Your task to perform on an android device: Open calendar and show me the third week of next month Image 0: 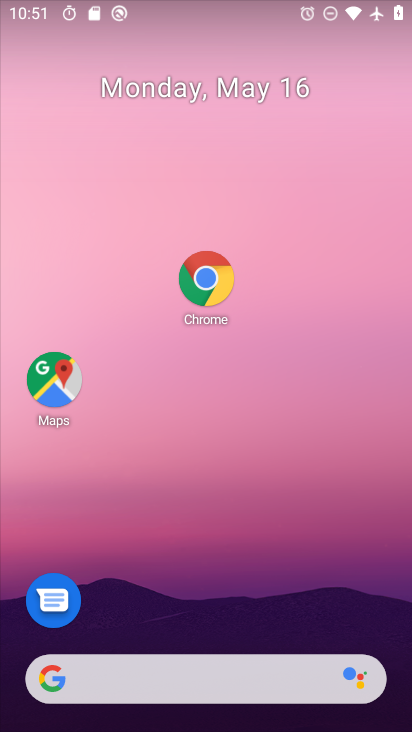
Step 0: drag from (239, 327) to (269, 267)
Your task to perform on an android device: Open calendar and show me the third week of next month Image 1: 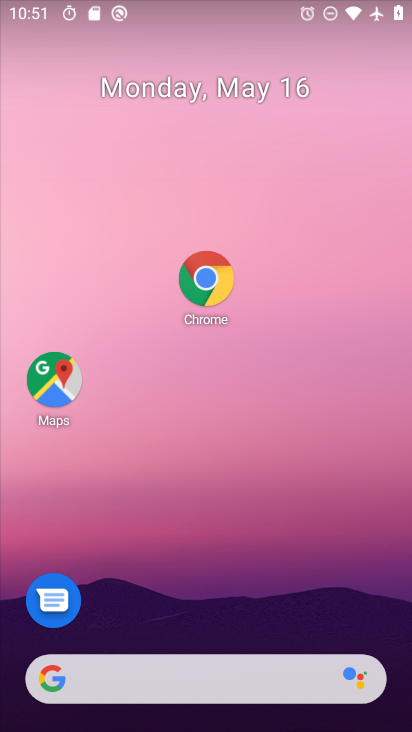
Step 1: drag from (168, 675) to (301, 30)
Your task to perform on an android device: Open calendar and show me the third week of next month Image 2: 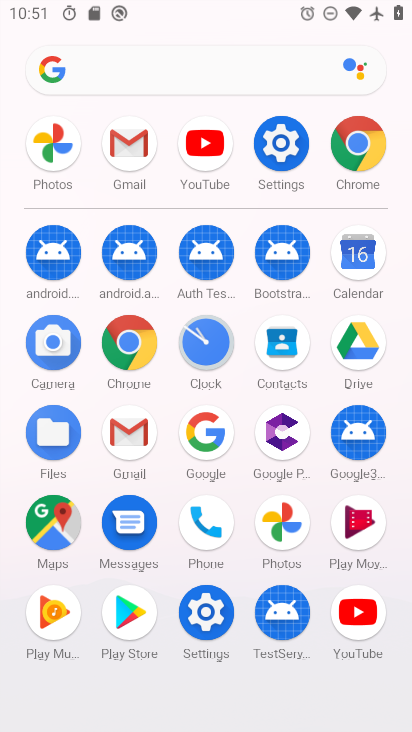
Step 2: click (362, 256)
Your task to perform on an android device: Open calendar and show me the third week of next month Image 3: 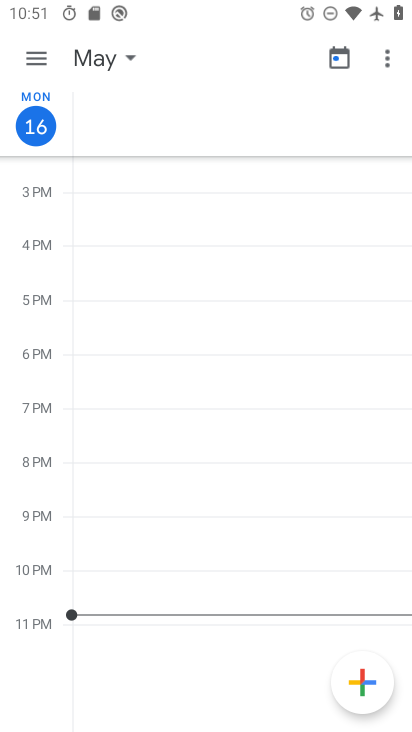
Step 3: click (84, 63)
Your task to perform on an android device: Open calendar and show me the third week of next month Image 4: 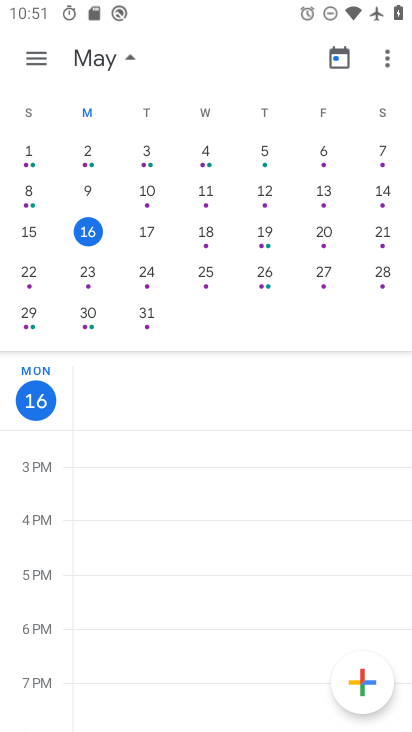
Step 4: drag from (365, 213) to (35, 180)
Your task to perform on an android device: Open calendar and show me the third week of next month Image 5: 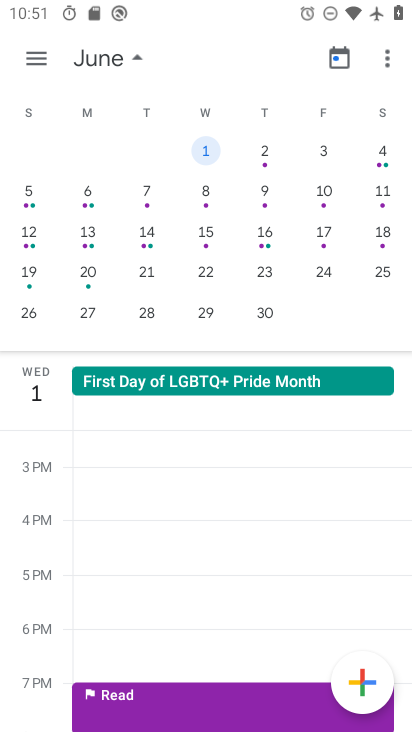
Step 5: click (29, 229)
Your task to perform on an android device: Open calendar and show me the third week of next month Image 6: 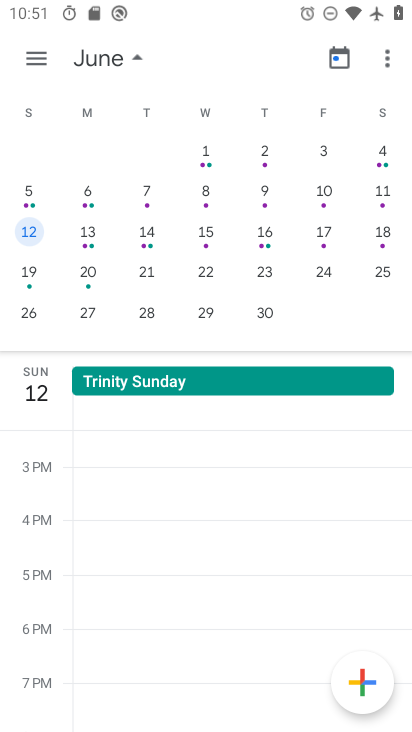
Step 6: click (36, 60)
Your task to perform on an android device: Open calendar and show me the third week of next month Image 7: 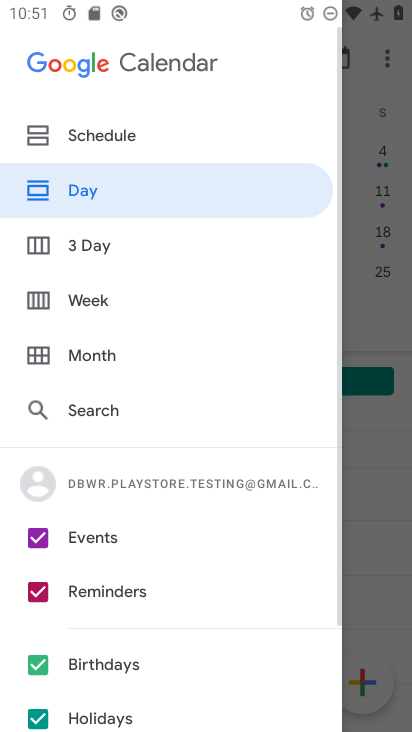
Step 7: click (100, 304)
Your task to perform on an android device: Open calendar and show me the third week of next month Image 8: 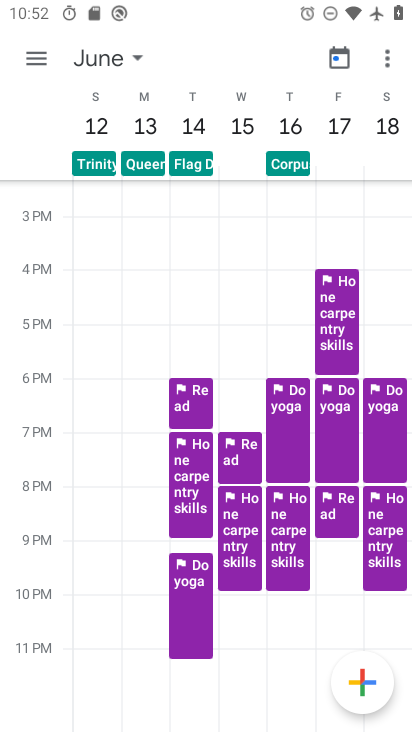
Step 8: task complete